Your task to perform on an android device: Open Google Image 0: 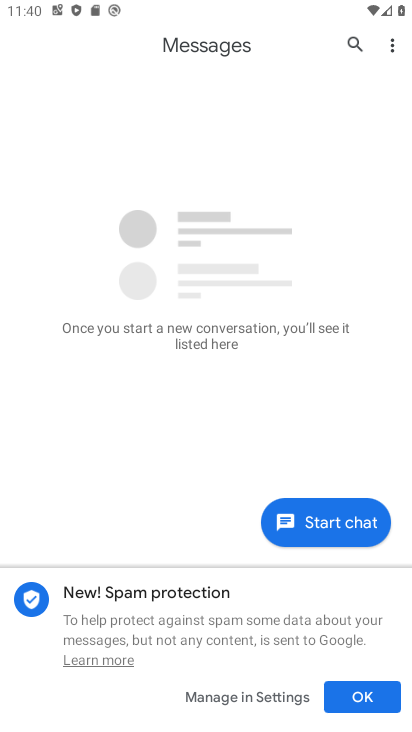
Step 0: press home button
Your task to perform on an android device: Open Google Image 1: 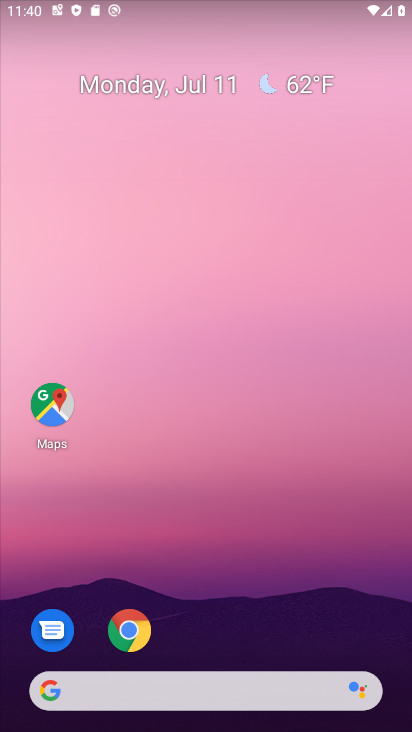
Step 1: drag from (152, 682) to (201, 21)
Your task to perform on an android device: Open Google Image 2: 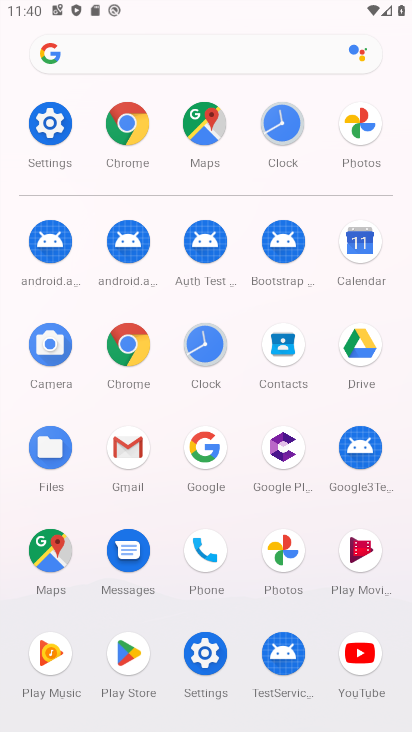
Step 2: click (134, 345)
Your task to perform on an android device: Open Google Image 3: 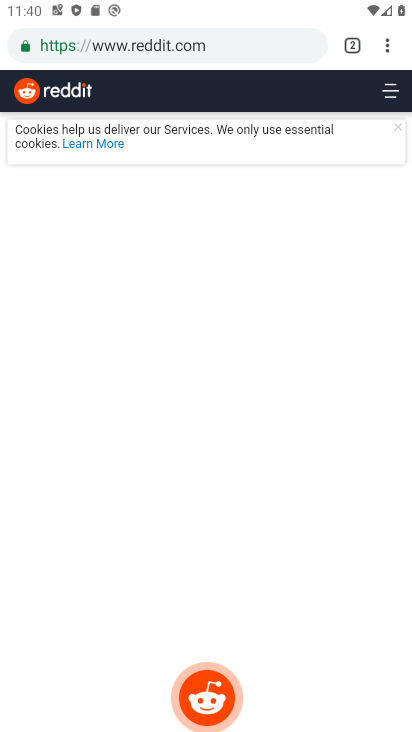
Step 3: task complete